Your task to perform on an android device: turn notification dots off Image 0: 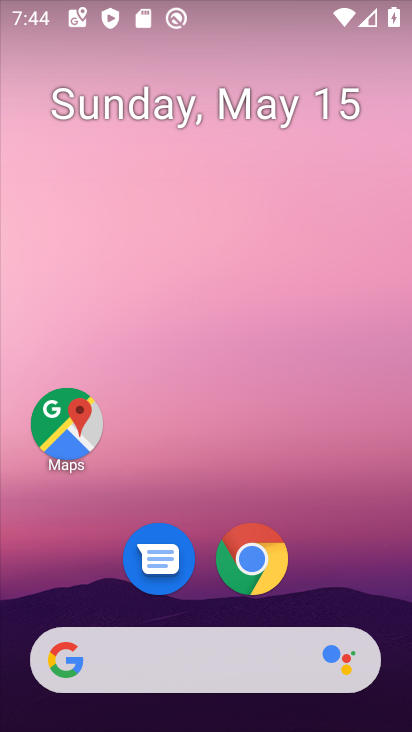
Step 0: click (248, 567)
Your task to perform on an android device: turn notification dots off Image 1: 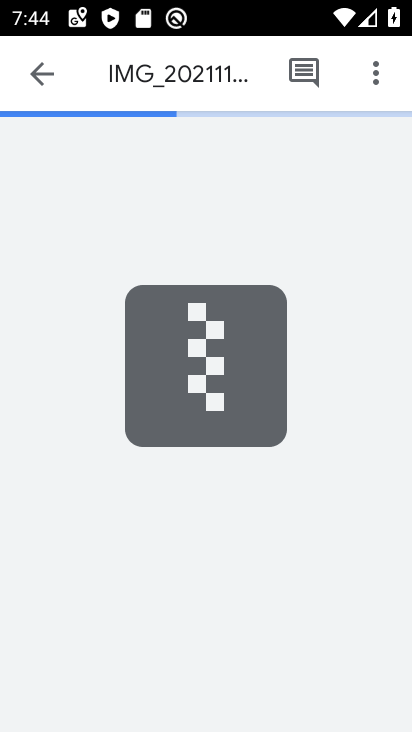
Step 1: press home button
Your task to perform on an android device: turn notification dots off Image 2: 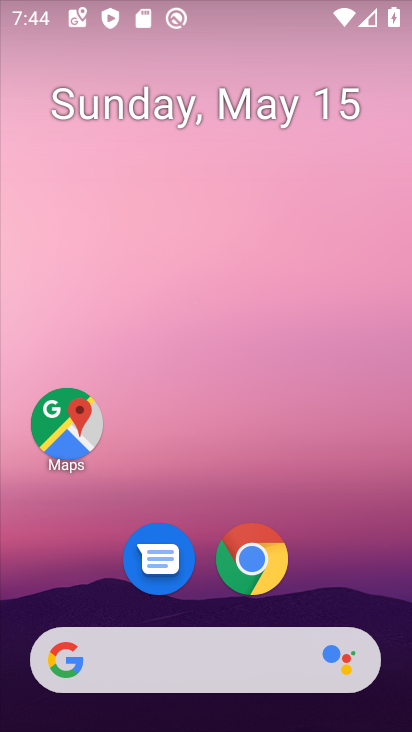
Step 2: drag from (327, 564) to (331, 47)
Your task to perform on an android device: turn notification dots off Image 3: 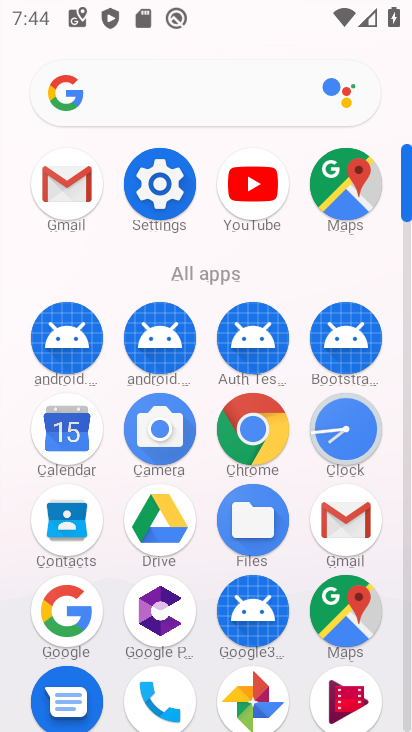
Step 3: click (171, 232)
Your task to perform on an android device: turn notification dots off Image 4: 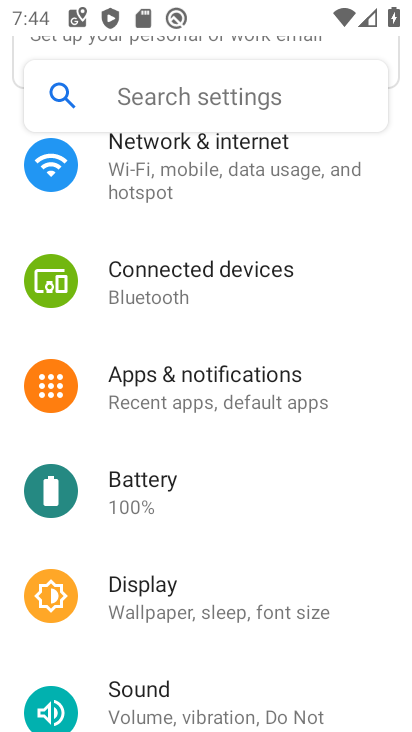
Step 4: click (170, 364)
Your task to perform on an android device: turn notification dots off Image 5: 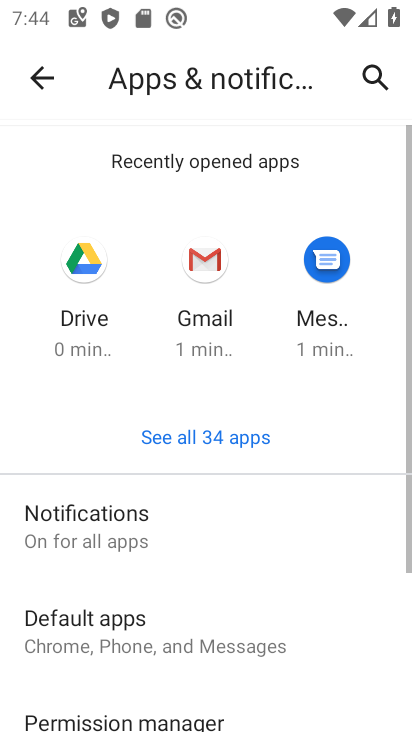
Step 5: click (152, 503)
Your task to perform on an android device: turn notification dots off Image 6: 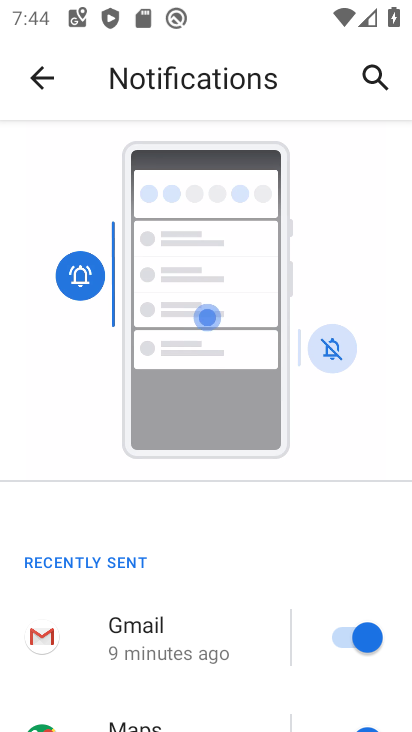
Step 6: drag from (165, 610) to (216, 297)
Your task to perform on an android device: turn notification dots off Image 7: 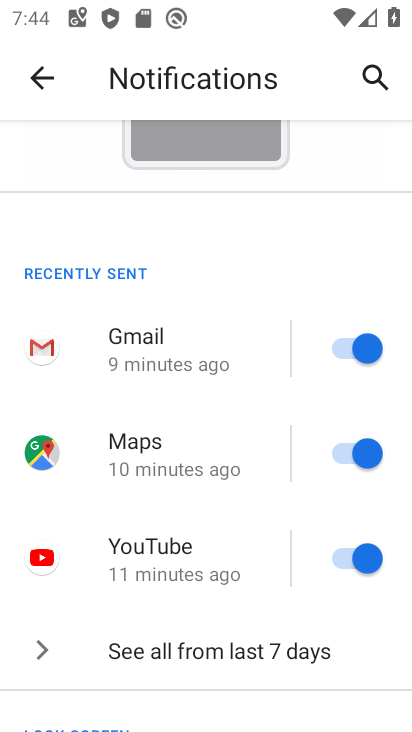
Step 7: drag from (206, 641) to (237, 341)
Your task to perform on an android device: turn notification dots off Image 8: 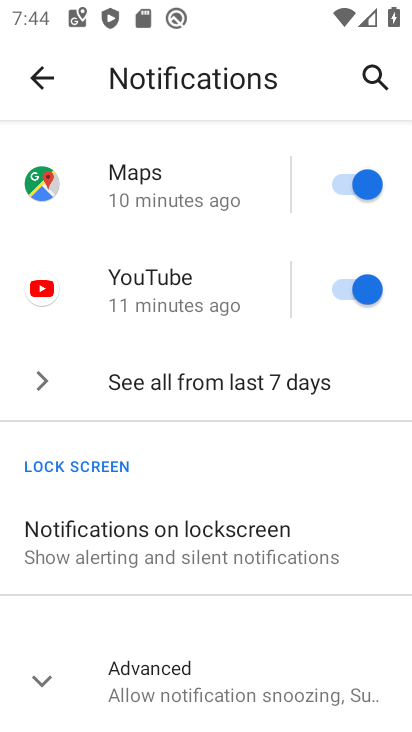
Step 8: click (148, 672)
Your task to perform on an android device: turn notification dots off Image 9: 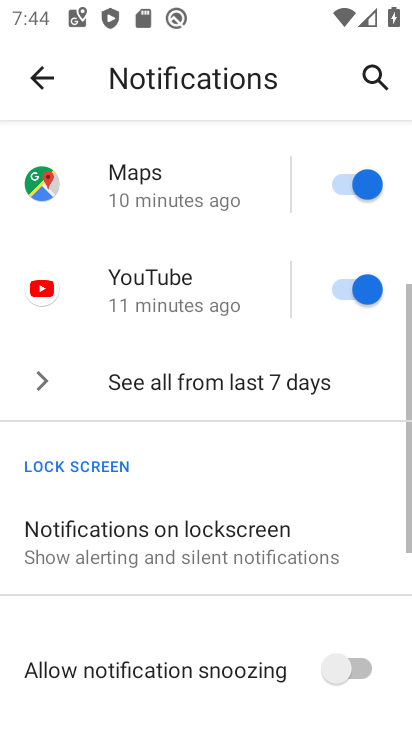
Step 9: drag from (205, 619) to (230, 370)
Your task to perform on an android device: turn notification dots off Image 10: 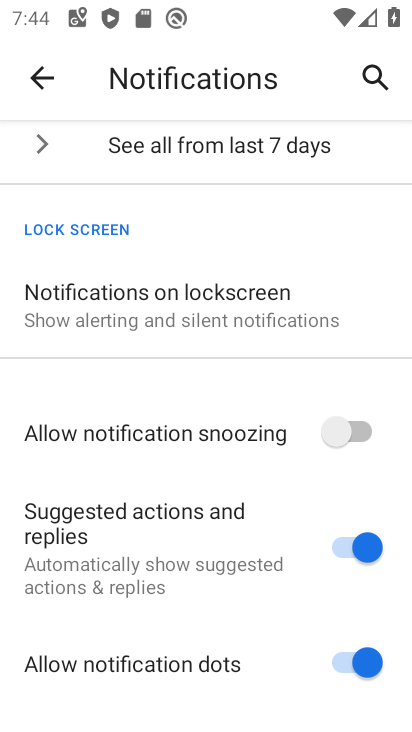
Step 10: click (344, 656)
Your task to perform on an android device: turn notification dots off Image 11: 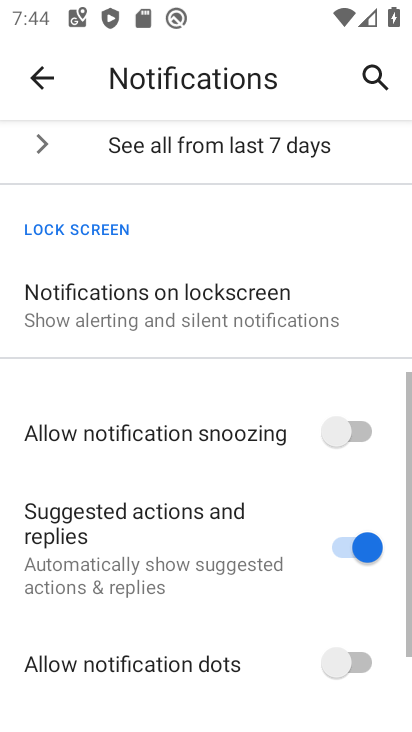
Step 11: task complete